Your task to perform on an android device: turn on showing notifications on the lock screen Image 0: 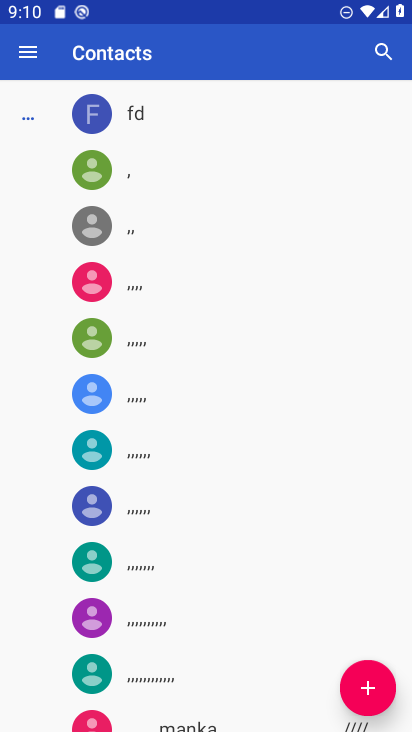
Step 0: press back button
Your task to perform on an android device: turn on showing notifications on the lock screen Image 1: 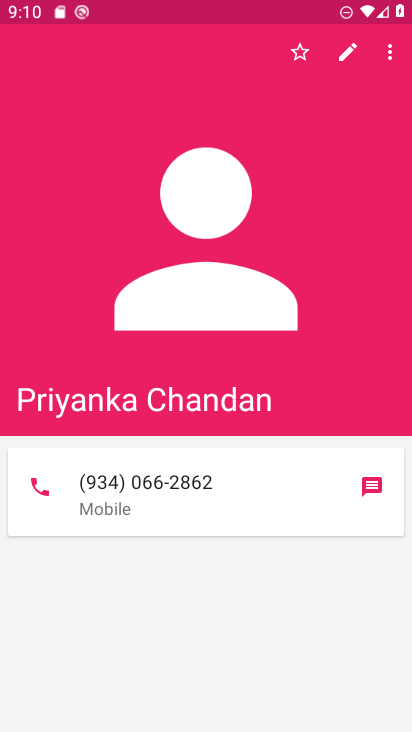
Step 1: press back button
Your task to perform on an android device: turn on showing notifications on the lock screen Image 2: 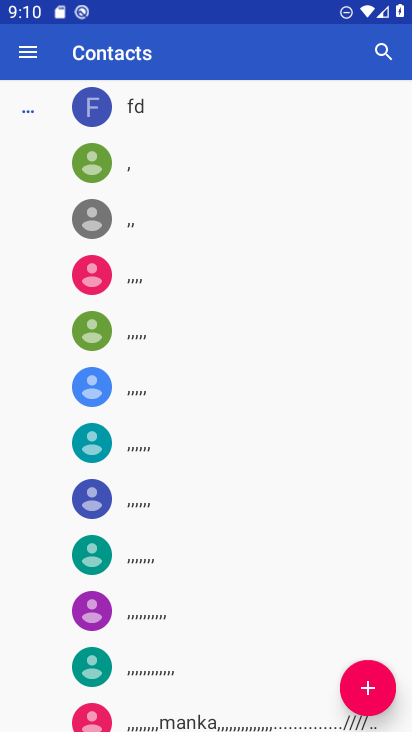
Step 2: press back button
Your task to perform on an android device: turn on showing notifications on the lock screen Image 3: 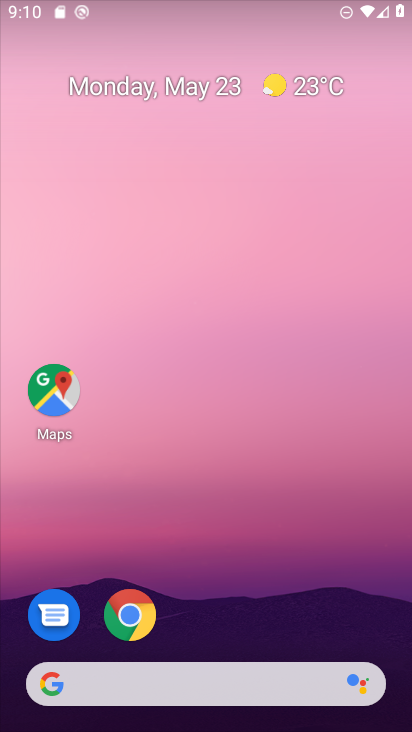
Step 3: press back button
Your task to perform on an android device: turn on showing notifications on the lock screen Image 4: 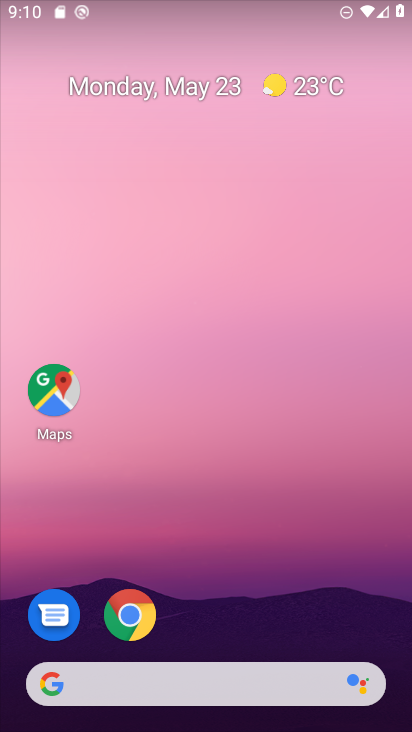
Step 4: drag from (248, 574) to (247, 116)
Your task to perform on an android device: turn on showing notifications on the lock screen Image 5: 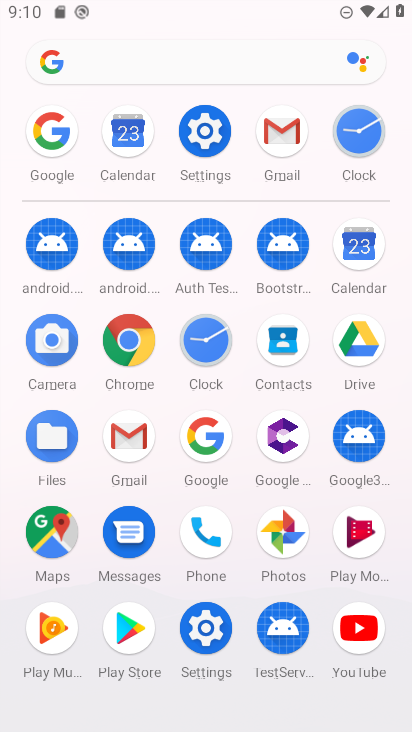
Step 5: click (206, 131)
Your task to perform on an android device: turn on showing notifications on the lock screen Image 6: 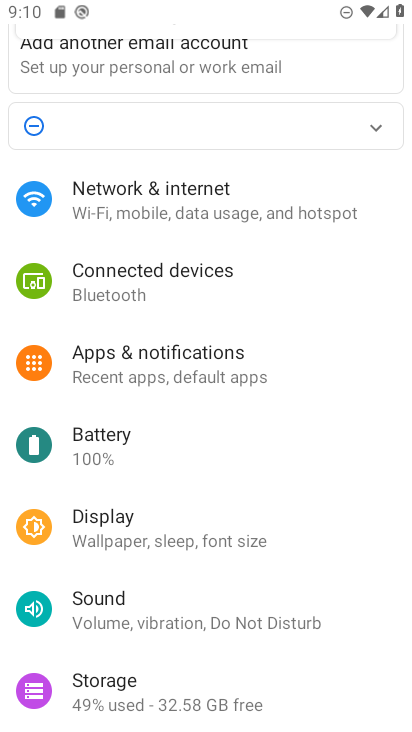
Step 6: click (169, 352)
Your task to perform on an android device: turn on showing notifications on the lock screen Image 7: 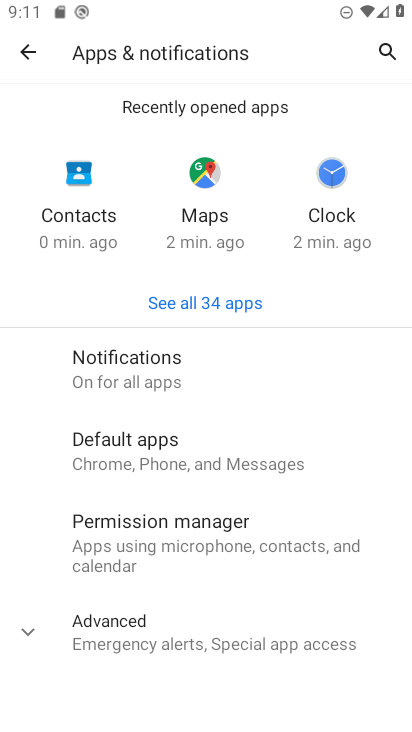
Step 7: click (144, 365)
Your task to perform on an android device: turn on showing notifications on the lock screen Image 8: 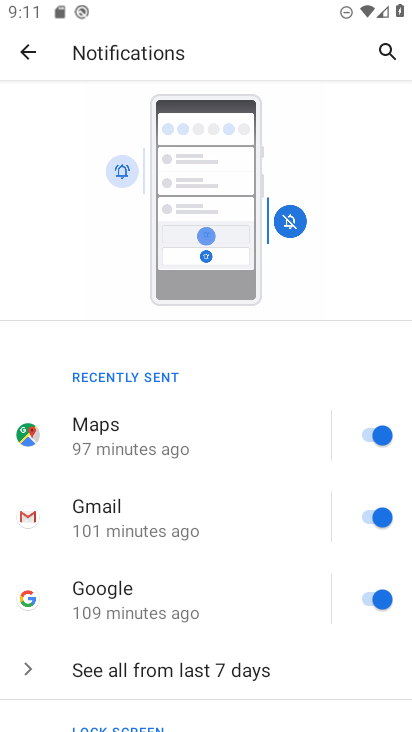
Step 8: drag from (160, 490) to (194, 394)
Your task to perform on an android device: turn on showing notifications on the lock screen Image 9: 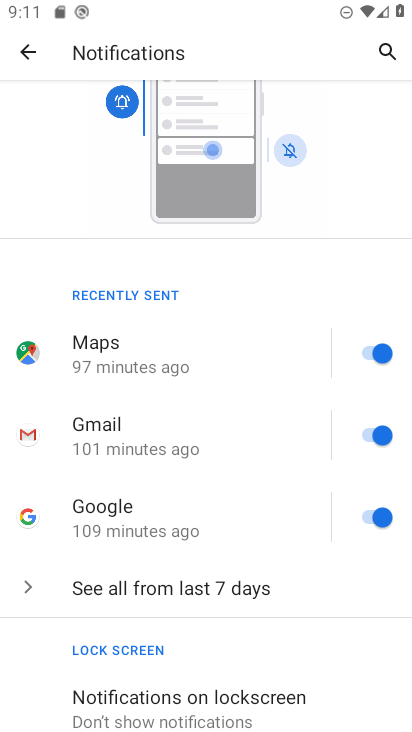
Step 9: drag from (144, 548) to (210, 432)
Your task to perform on an android device: turn on showing notifications on the lock screen Image 10: 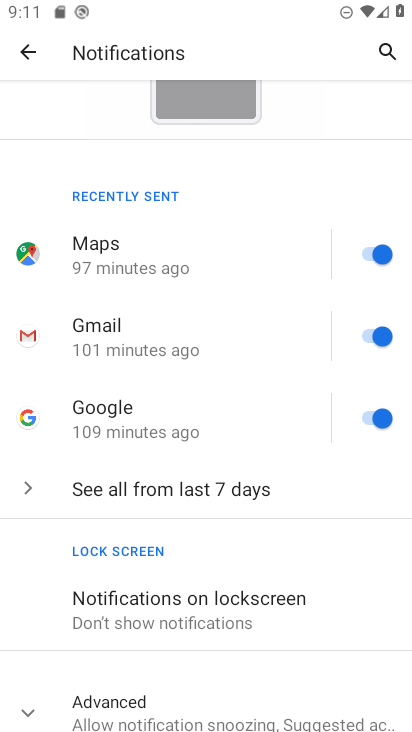
Step 10: click (165, 609)
Your task to perform on an android device: turn on showing notifications on the lock screen Image 11: 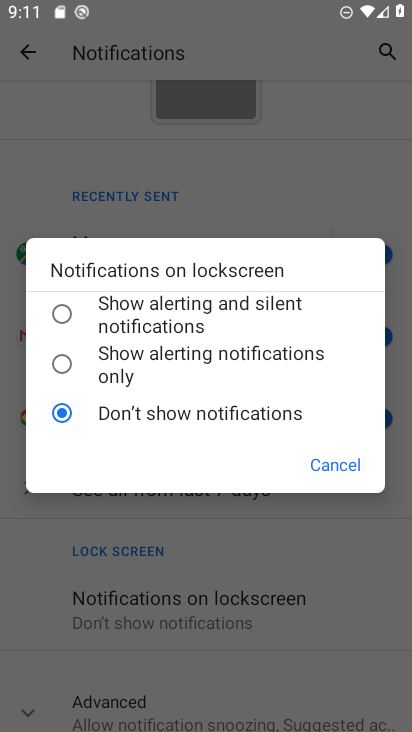
Step 11: click (64, 314)
Your task to perform on an android device: turn on showing notifications on the lock screen Image 12: 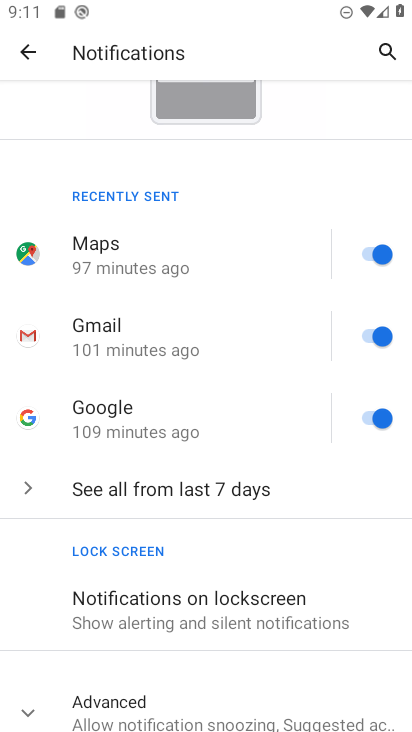
Step 12: task complete